Your task to perform on an android device: Show me popular games on the Play Store Image 0: 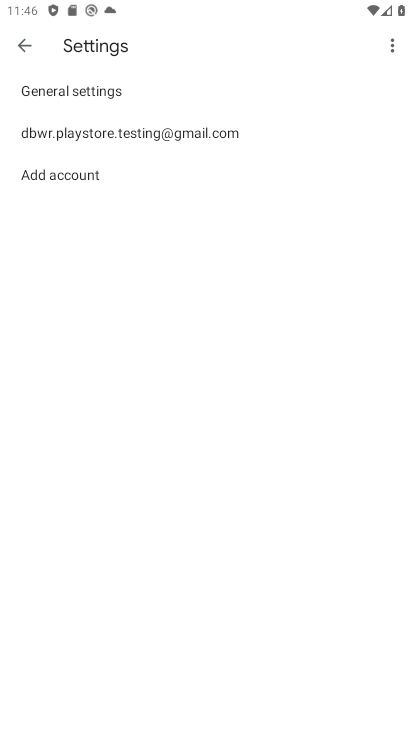
Step 0: press home button
Your task to perform on an android device: Show me popular games on the Play Store Image 1: 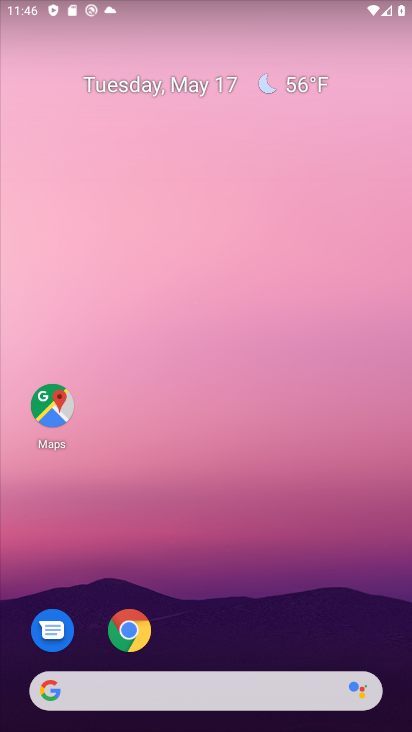
Step 1: drag from (220, 725) to (188, 101)
Your task to perform on an android device: Show me popular games on the Play Store Image 2: 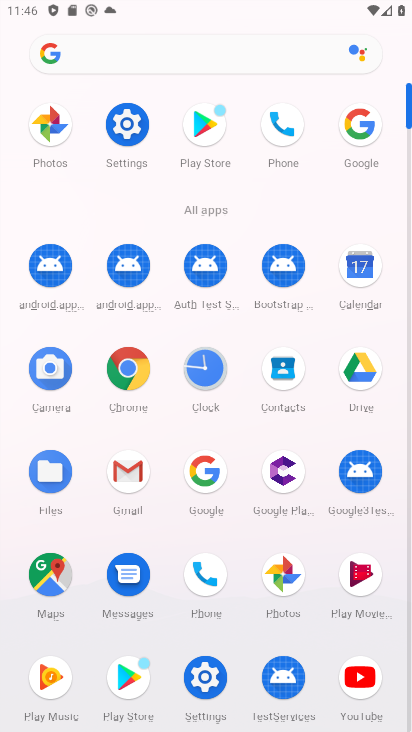
Step 2: click (125, 668)
Your task to perform on an android device: Show me popular games on the Play Store Image 3: 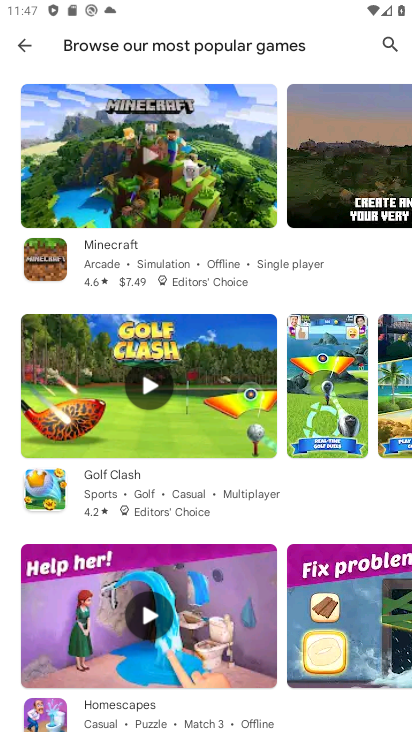
Step 3: task complete